Your task to perform on an android device: toggle notifications settings in the gmail app Image 0: 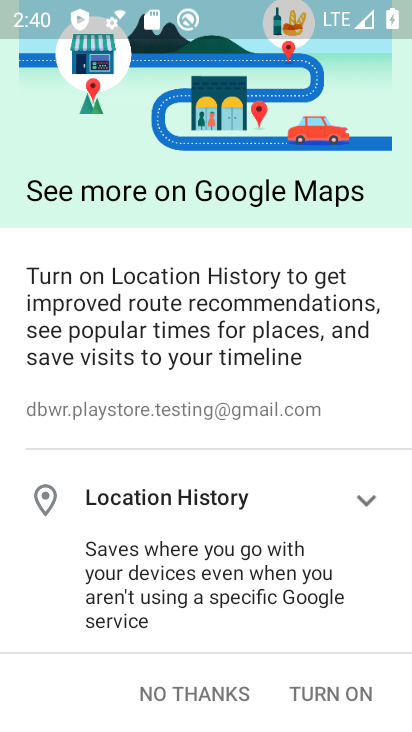
Step 0: press home button
Your task to perform on an android device: toggle notifications settings in the gmail app Image 1: 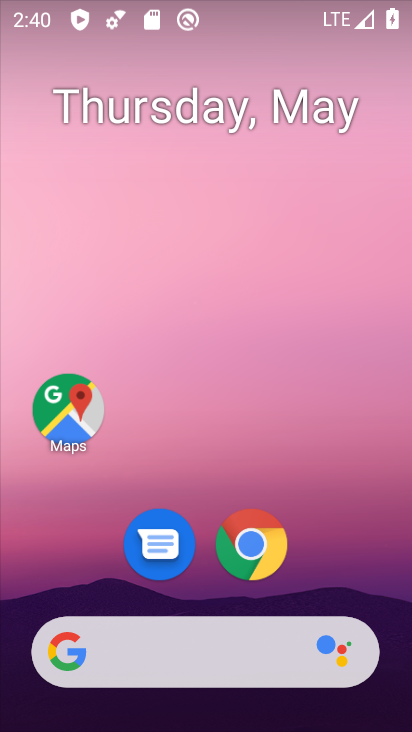
Step 1: drag from (194, 699) to (218, 138)
Your task to perform on an android device: toggle notifications settings in the gmail app Image 2: 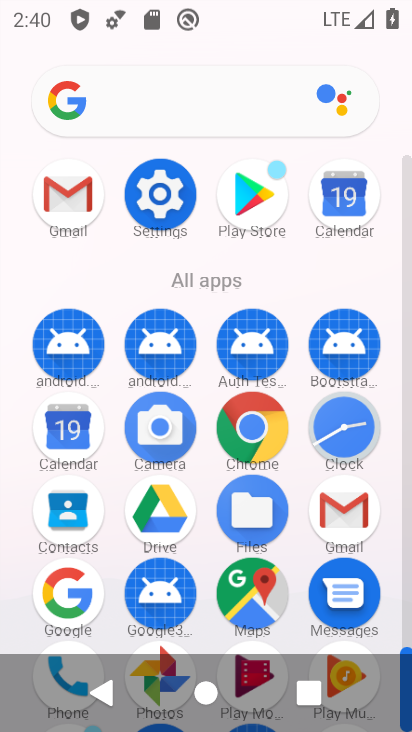
Step 2: click (62, 195)
Your task to perform on an android device: toggle notifications settings in the gmail app Image 3: 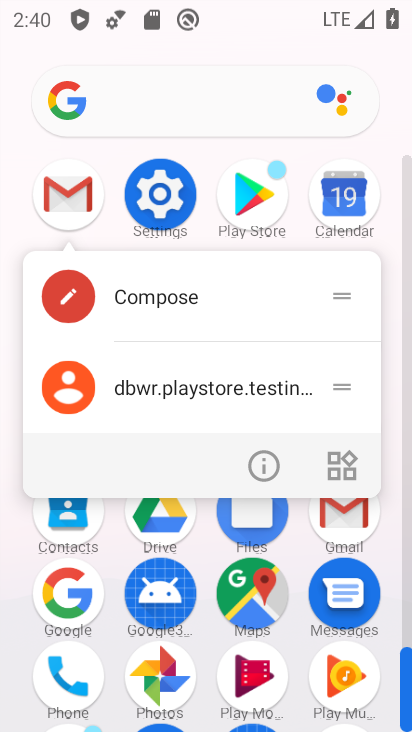
Step 3: click (257, 463)
Your task to perform on an android device: toggle notifications settings in the gmail app Image 4: 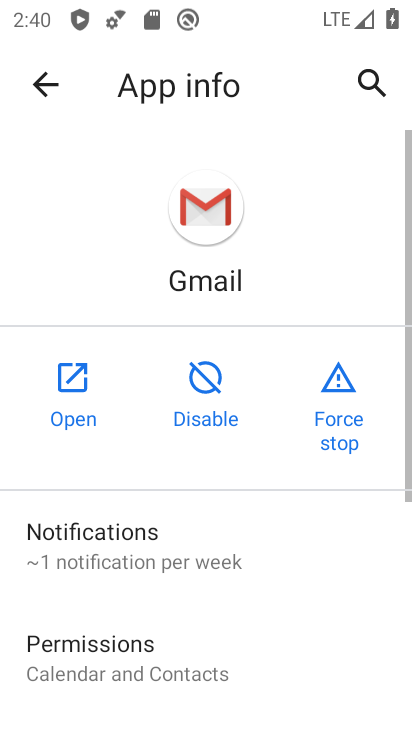
Step 4: click (226, 549)
Your task to perform on an android device: toggle notifications settings in the gmail app Image 5: 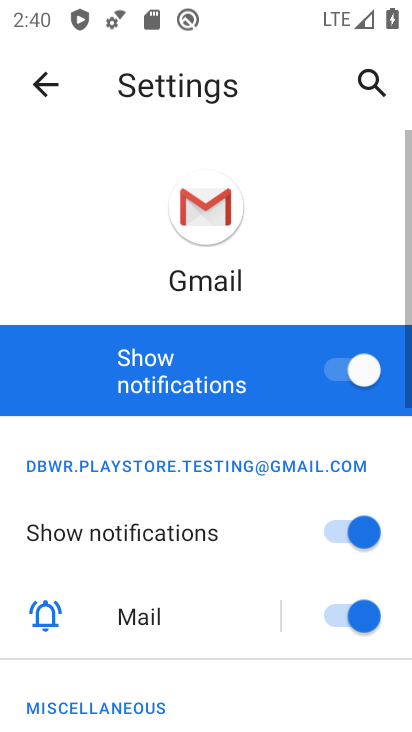
Step 5: click (364, 363)
Your task to perform on an android device: toggle notifications settings in the gmail app Image 6: 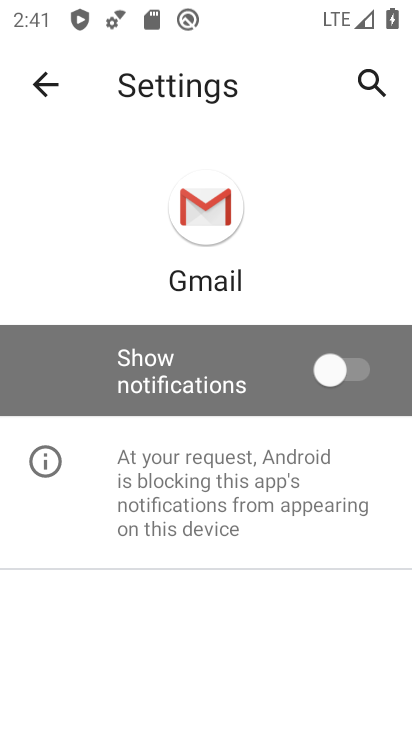
Step 6: task complete